Your task to perform on an android device: turn on the 24-hour format for clock Image 0: 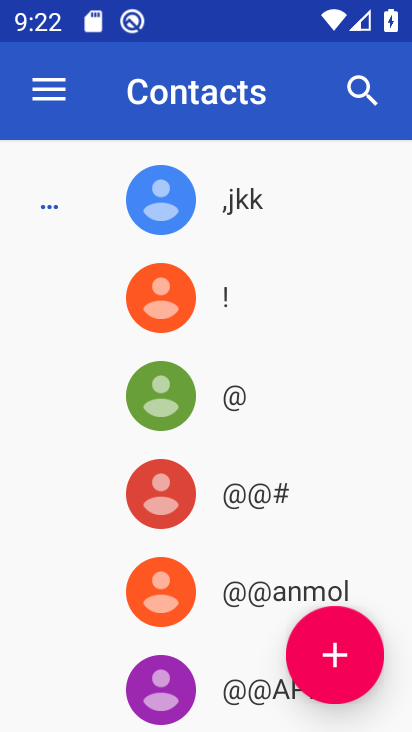
Step 0: press home button
Your task to perform on an android device: turn on the 24-hour format for clock Image 1: 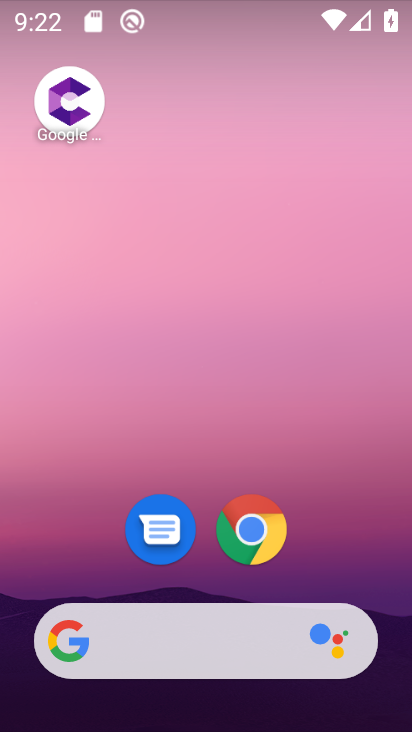
Step 1: drag from (47, 565) to (151, 89)
Your task to perform on an android device: turn on the 24-hour format for clock Image 2: 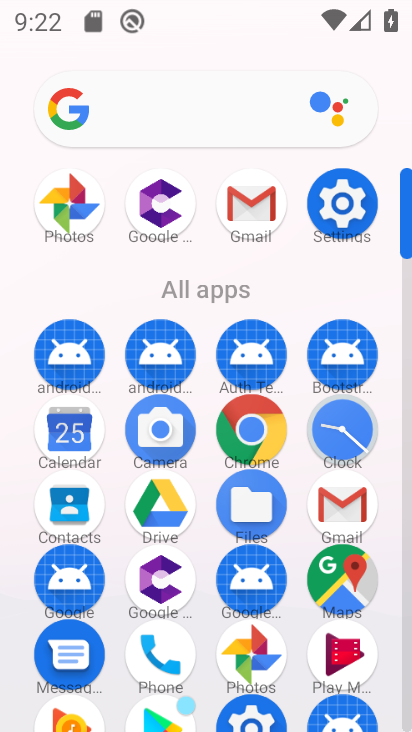
Step 2: click (348, 440)
Your task to perform on an android device: turn on the 24-hour format for clock Image 3: 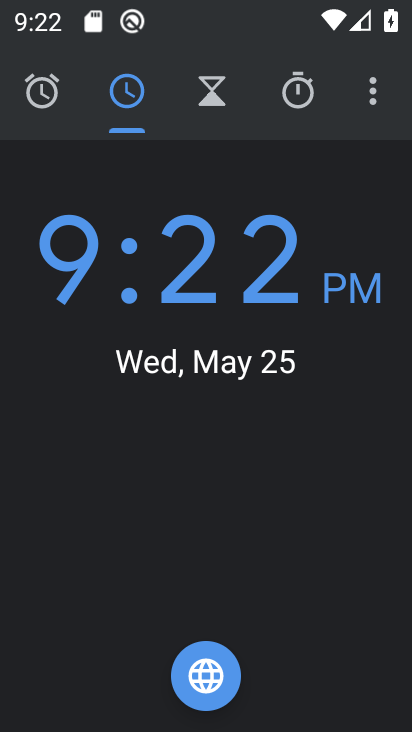
Step 3: click (386, 83)
Your task to perform on an android device: turn on the 24-hour format for clock Image 4: 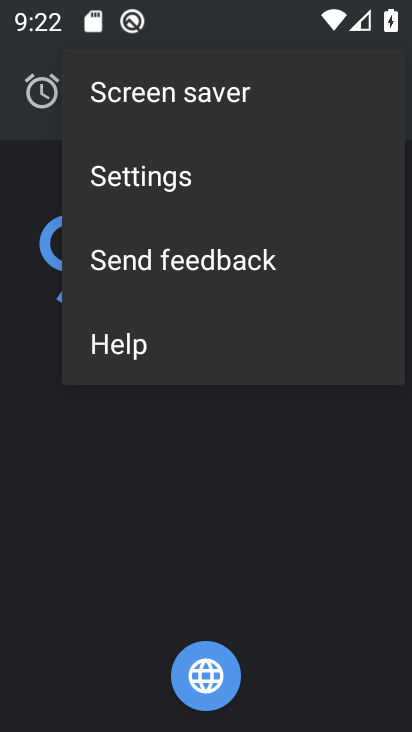
Step 4: click (253, 189)
Your task to perform on an android device: turn on the 24-hour format for clock Image 5: 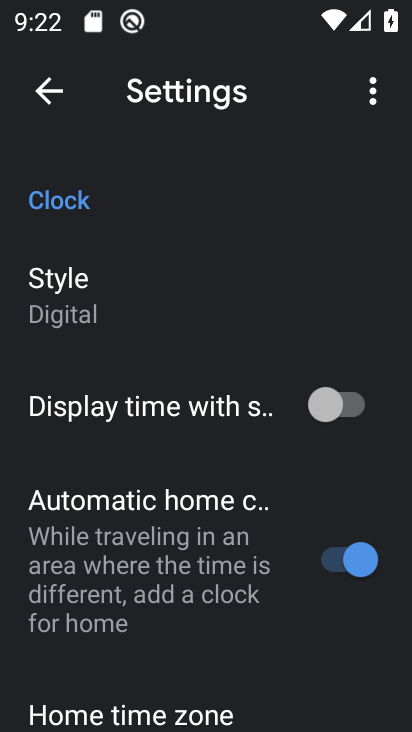
Step 5: drag from (174, 649) to (265, 263)
Your task to perform on an android device: turn on the 24-hour format for clock Image 6: 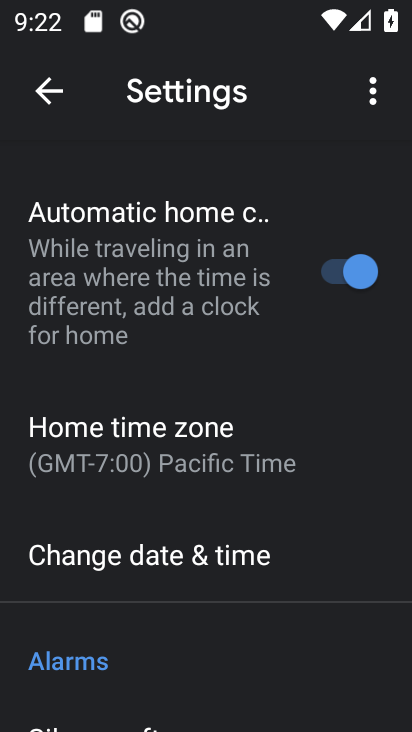
Step 6: click (216, 562)
Your task to perform on an android device: turn on the 24-hour format for clock Image 7: 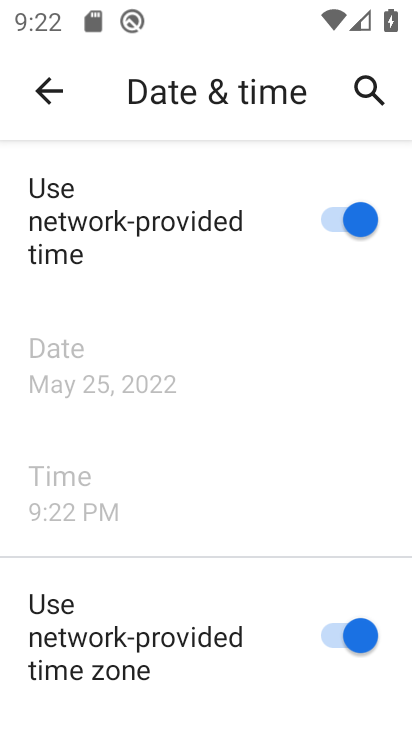
Step 7: drag from (113, 660) to (250, 219)
Your task to perform on an android device: turn on the 24-hour format for clock Image 8: 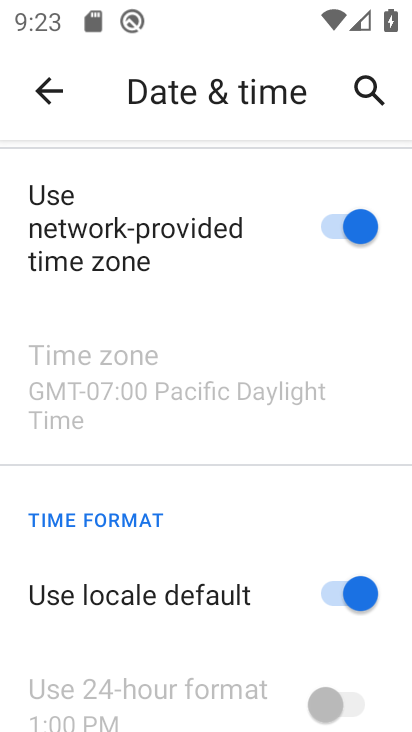
Step 8: drag from (189, 697) to (233, 448)
Your task to perform on an android device: turn on the 24-hour format for clock Image 9: 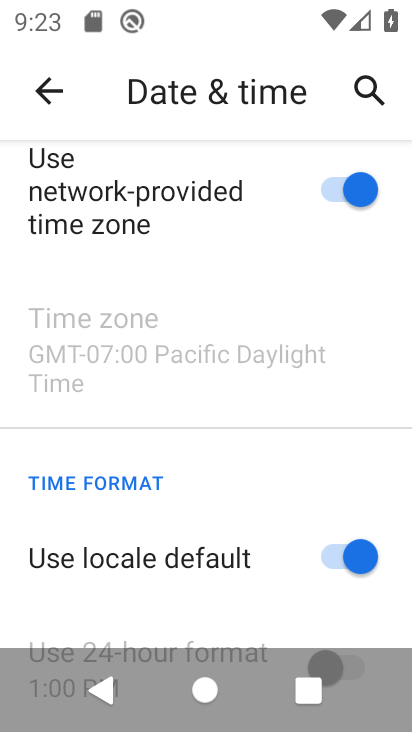
Step 9: click (352, 547)
Your task to perform on an android device: turn on the 24-hour format for clock Image 10: 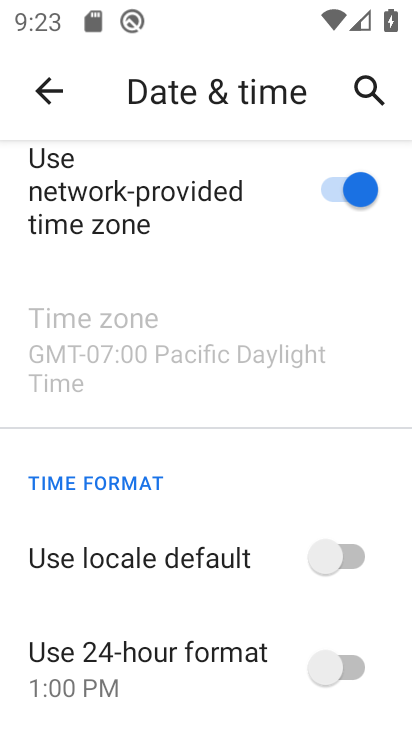
Step 10: click (381, 673)
Your task to perform on an android device: turn on the 24-hour format for clock Image 11: 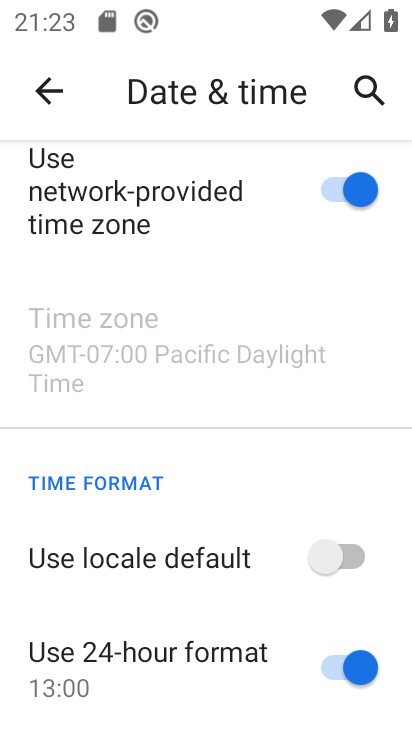
Step 11: task complete